Your task to perform on an android device: turn off location history Image 0: 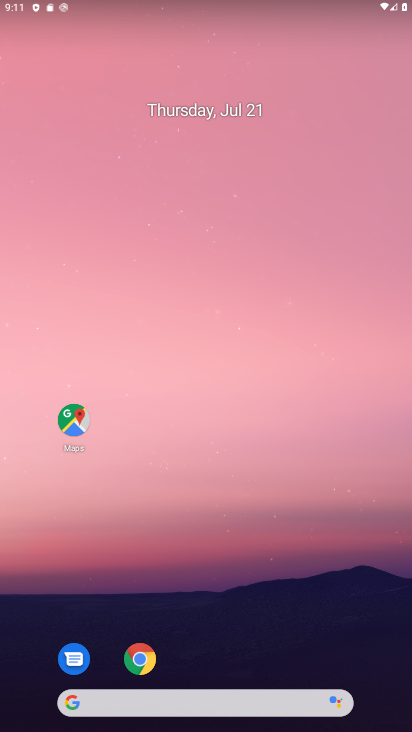
Step 0: drag from (269, 669) to (277, 25)
Your task to perform on an android device: turn off location history Image 1: 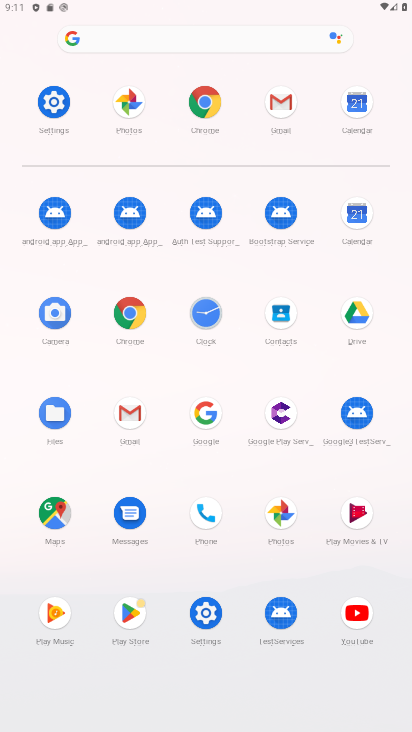
Step 1: click (45, 120)
Your task to perform on an android device: turn off location history Image 2: 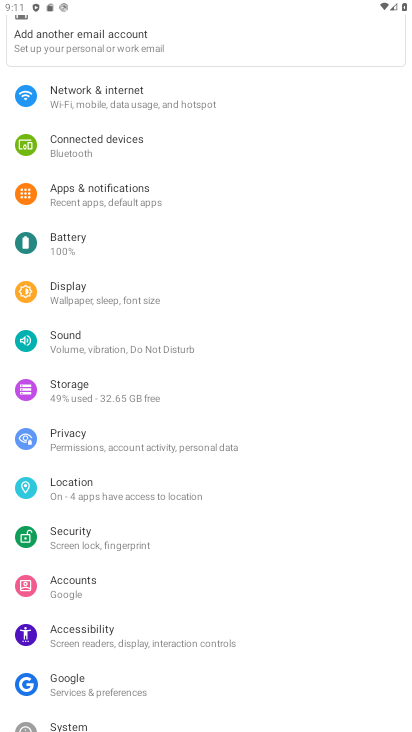
Step 2: click (78, 491)
Your task to perform on an android device: turn off location history Image 3: 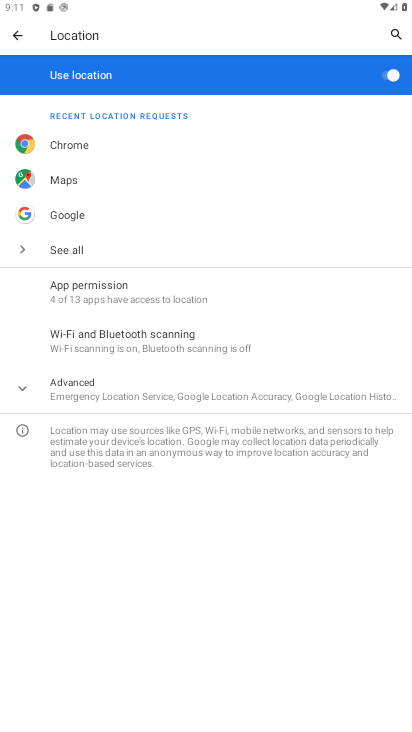
Step 3: click (77, 388)
Your task to perform on an android device: turn off location history Image 4: 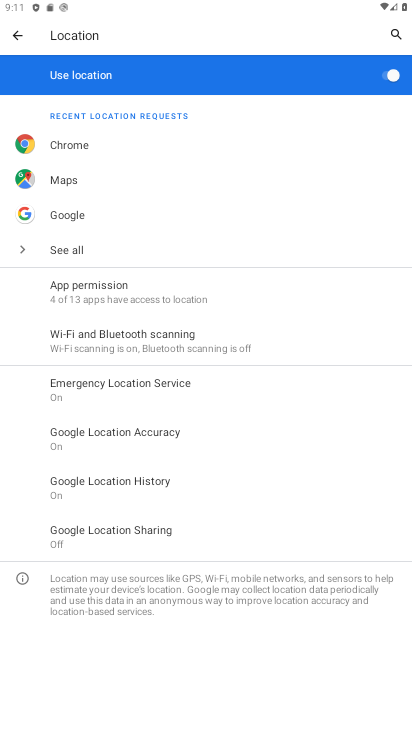
Step 4: click (122, 471)
Your task to perform on an android device: turn off location history Image 5: 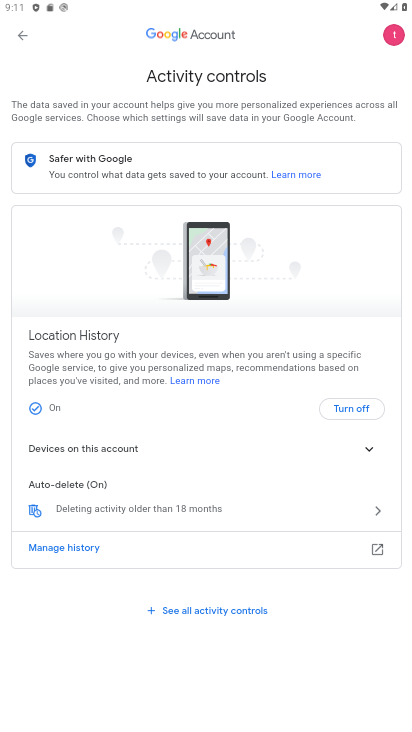
Step 5: click (370, 401)
Your task to perform on an android device: turn off location history Image 6: 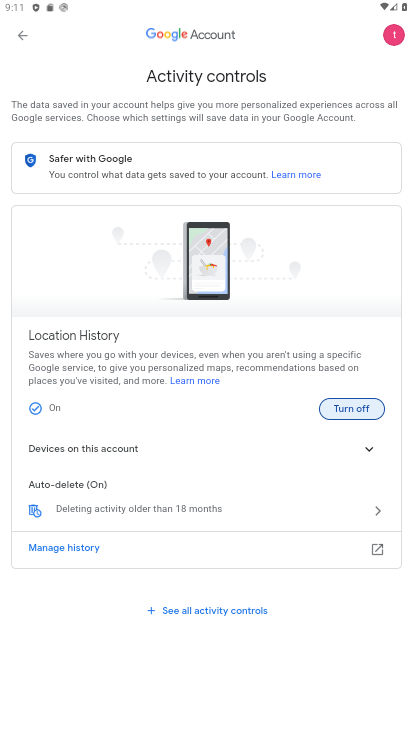
Step 6: click (366, 404)
Your task to perform on an android device: turn off location history Image 7: 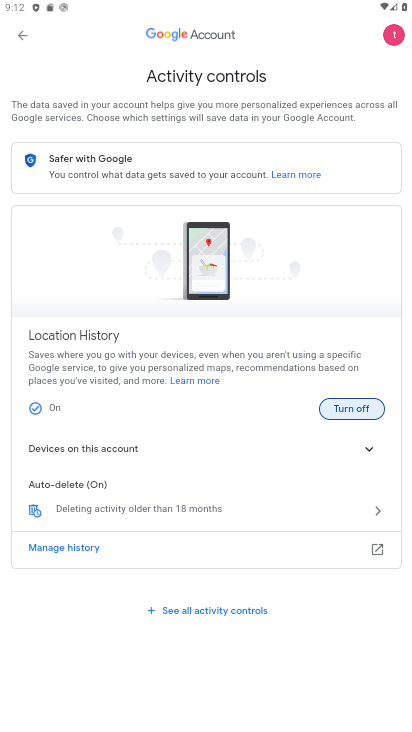
Step 7: click (352, 403)
Your task to perform on an android device: turn off location history Image 8: 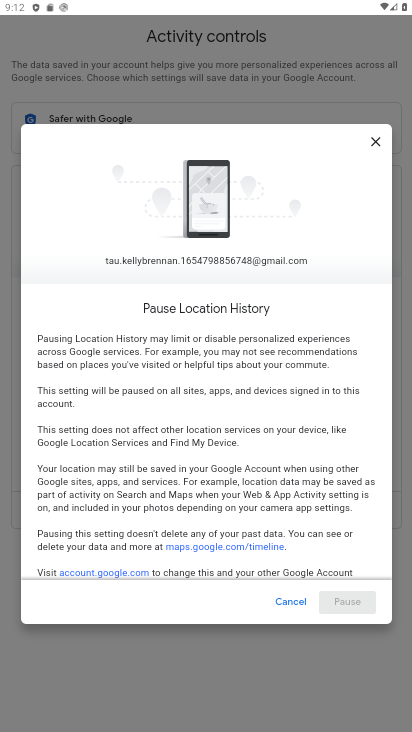
Step 8: drag from (337, 536) to (282, 183)
Your task to perform on an android device: turn off location history Image 9: 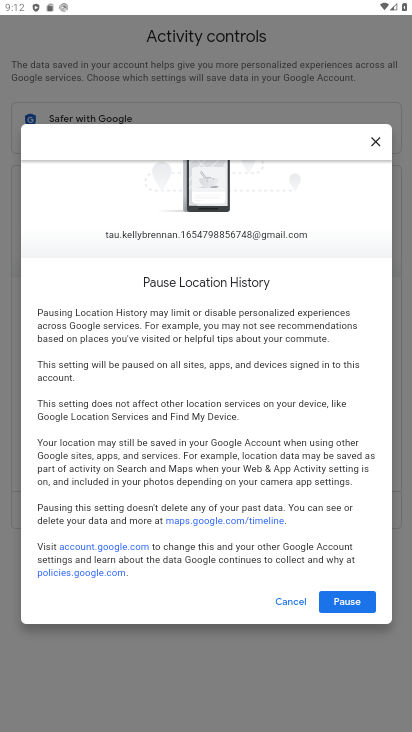
Step 9: click (351, 602)
Your task to perform on an android device: turn off location history Image 10: 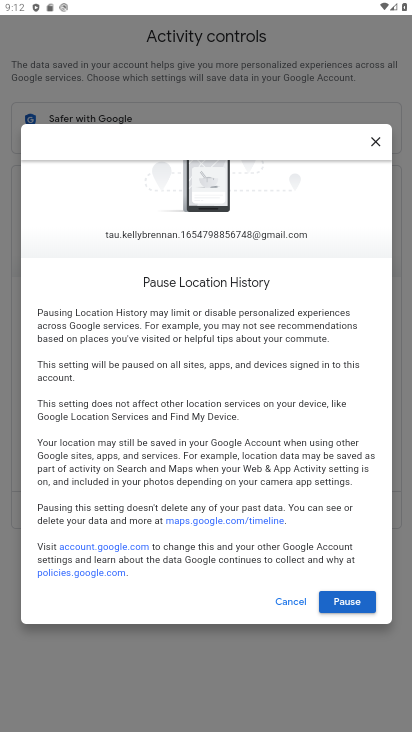
Step 10: click (350, 602)
Your task to perform on an android device: turn off location history Image 11: 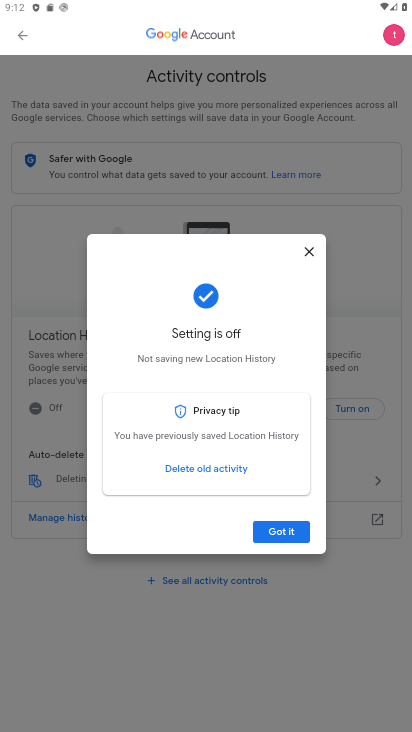
Step 11: click (350, 602)
Your task to perform on an android device: turn off location history Image 12: 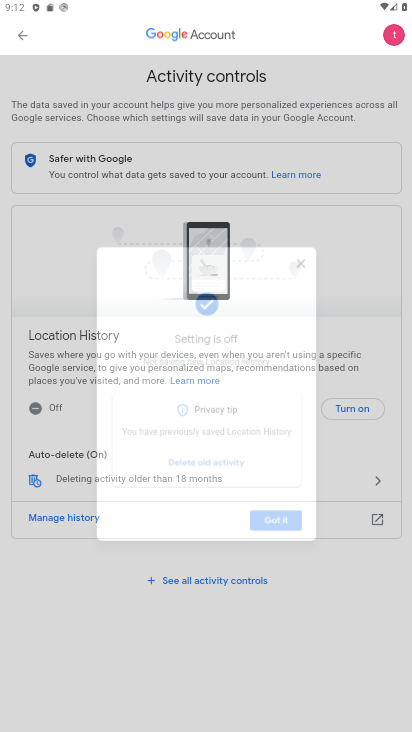
Step 12: click (263, 536)
Your task to perform on an android device: turn off location history Image 13: 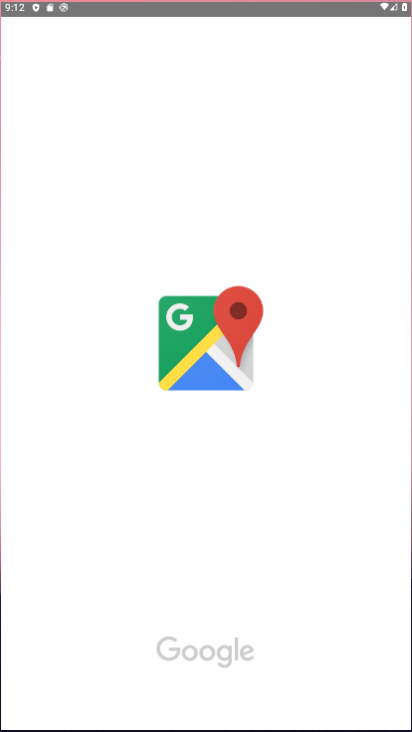
Step 13: task complete